Your task to perform on an android device: check google app version Image 0: 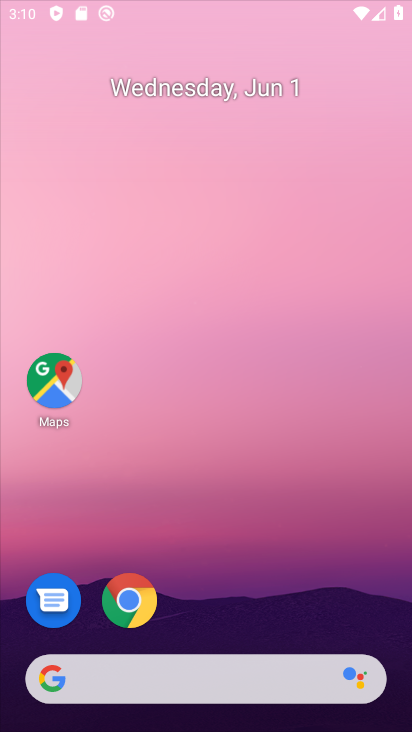
Step 0: click (207, 113)
Your task to perform on an android device: check google app version Image 1: 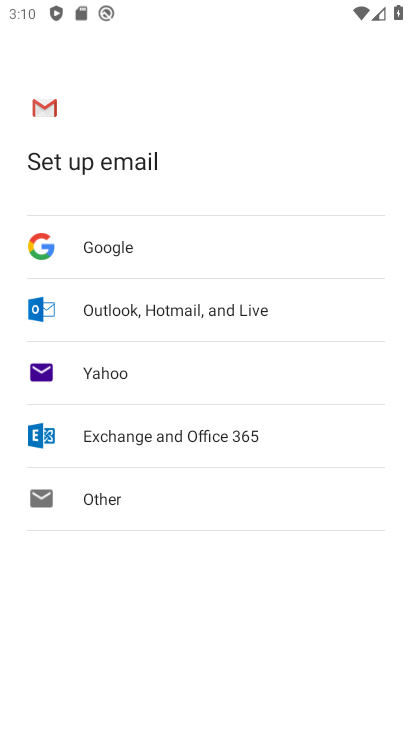
Step 1: press back button
Your task to perform on an android device: check google app version Image 2: 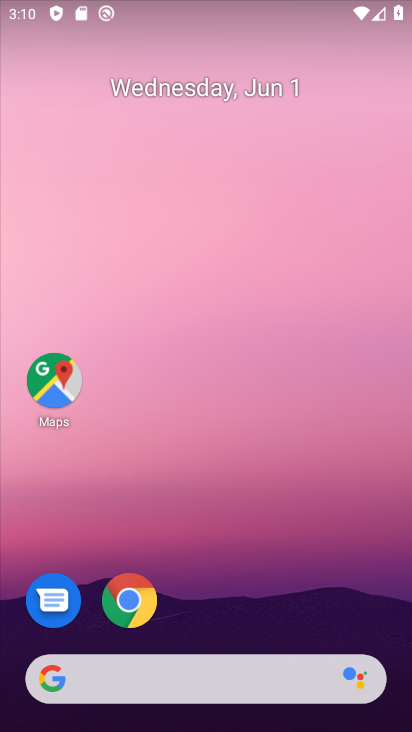
Step 2: click (54, 674)
Your task to perform on an android device: check google app version Image 3: 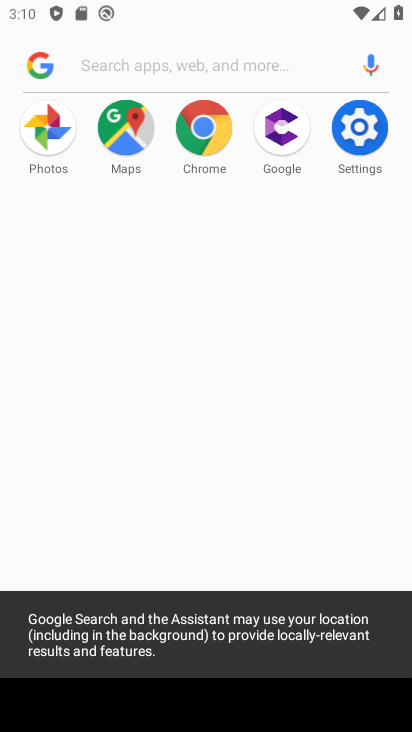
Step 3: click (44, 70)
Your task to perform on an android device: check google app version Image 4: 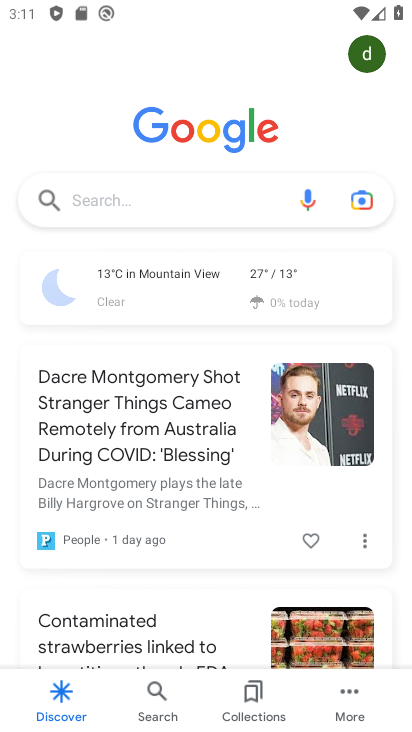
Step 4: click (343, 711)
Your task to perform on an android device: check google app version Image 5: 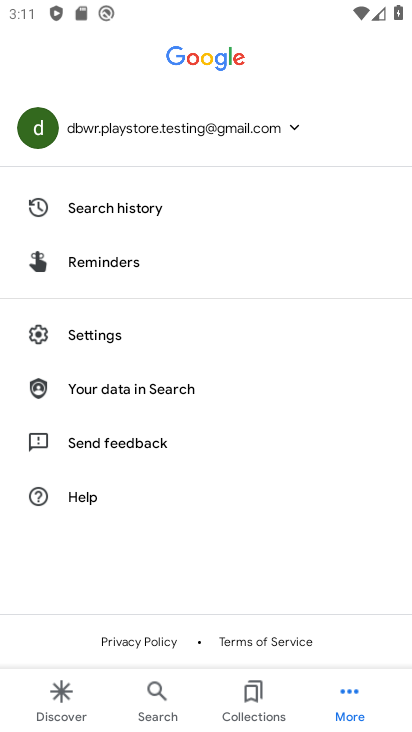
Step 5: click (92, 340)
Your task to perform on an android device: check google app version Image 6: 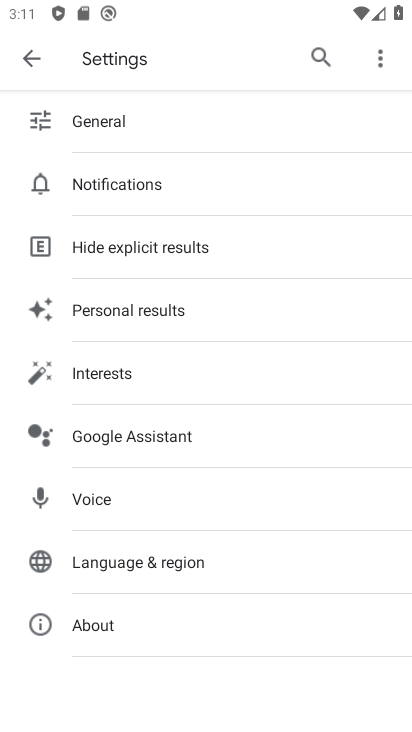
Step 6: click (106, 624)
Your task to perform on an android device: check google app version Image 7: 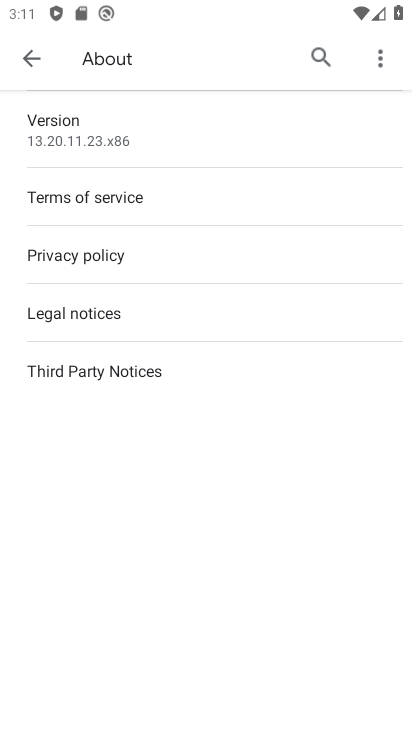
Step 7: task complete